Your task to perform on an android device: Search for Mexican restaurants on Maps Image 0: 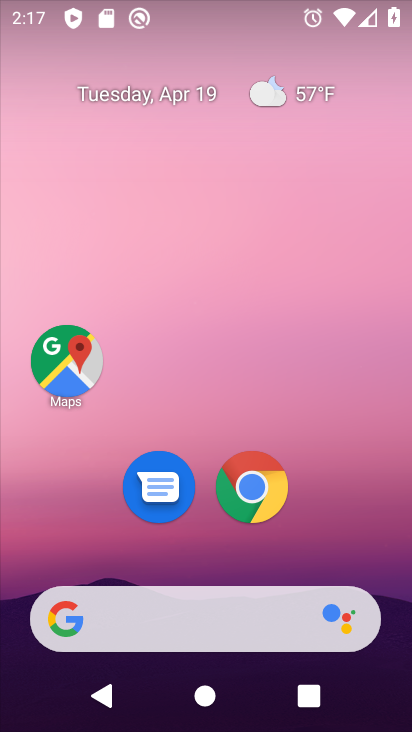
Step 0: drag from (369, 525) to (318, 120)
Your task to perform on an android device: Search for Mexican restaurants on Maps Image 1: 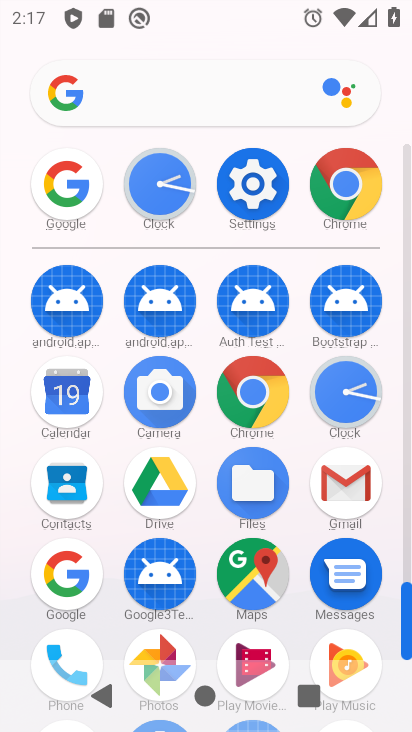
Step 1: click (246, 593)
Your task to perform on an android device: Search for Mexican restaurants on Maps Image 2: 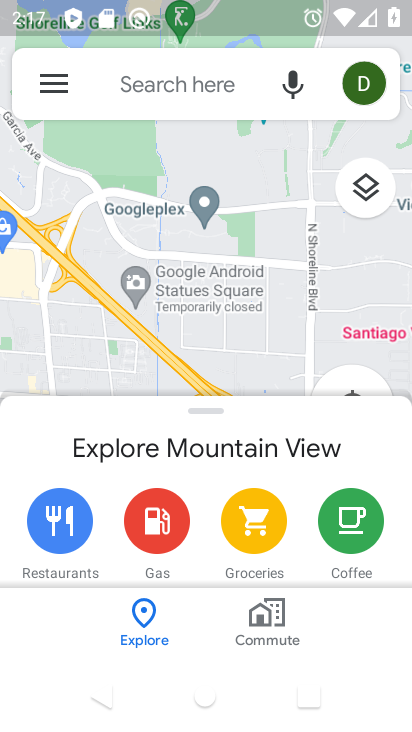
Step 2: click (138, 90)
Your task to perform on an android device: Search for Mexican restaurants on Maps Image 3: 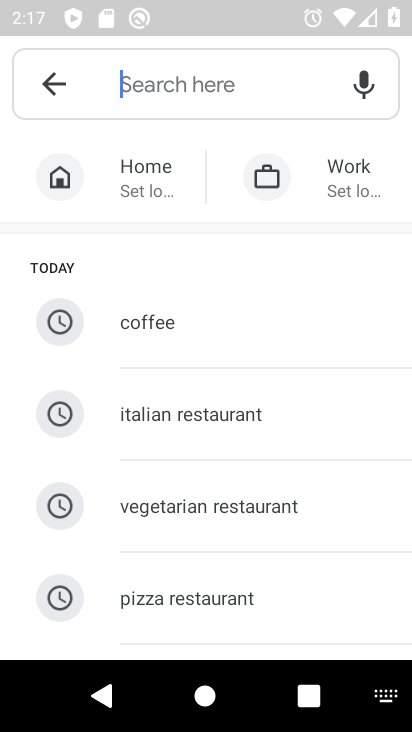
Step 3: type "mexican restaurants"
Your task to perform on an android device: Search for Mexican restaurants on Maps Image 4: 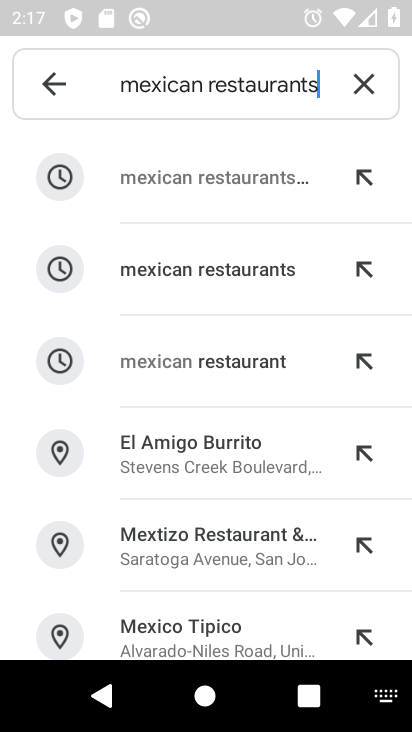
Step 4: click (219, 185)
Your task to perform on an android device: Search for Mexican restaurants on Maps Image 5: 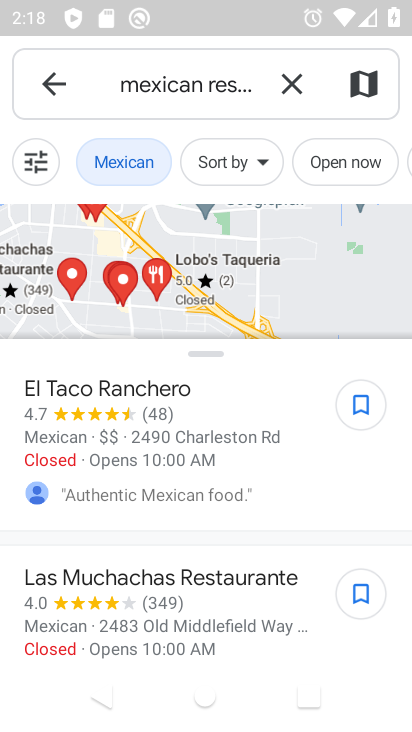
Step 5: task complete